Your task to perform on an android device: Show me popular videos on Youtube Image 0: 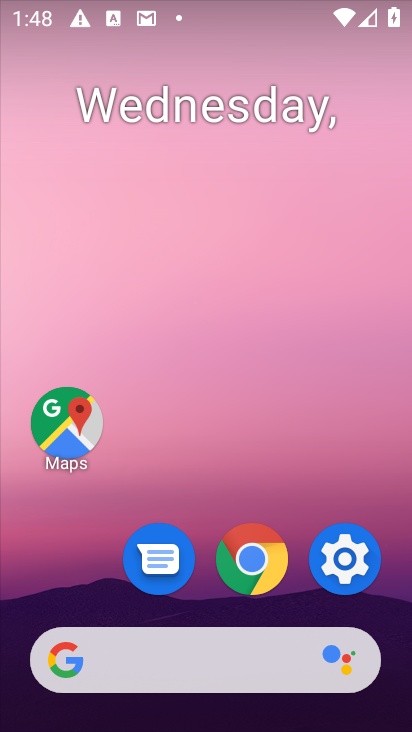
Step 0: press home button
Your task to perform on an android device: Show me popular videos on Youtube Image 1: 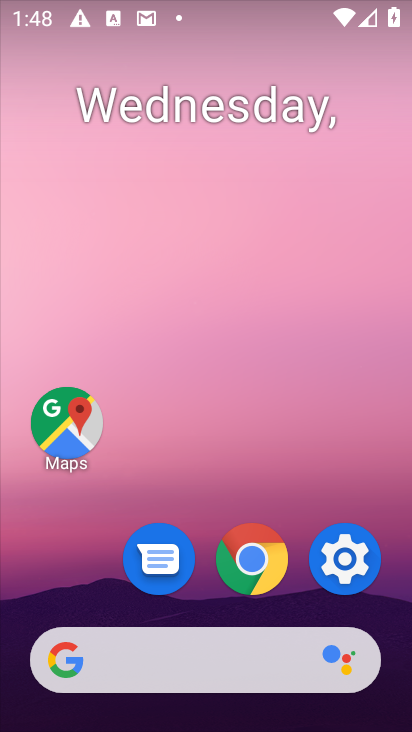
Step 1: drag from (302, 669) to (318, 109)
Your task to perform on an android device: Show me popular videos on Youtube Image 2: 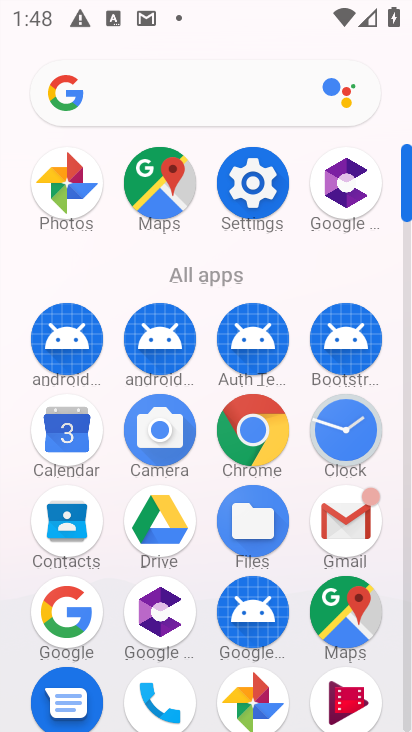
Step 2: drag from (107, 588) to (127, 358)
Your task to perform on an android device: Show me popular videos on Youtube Image 3: 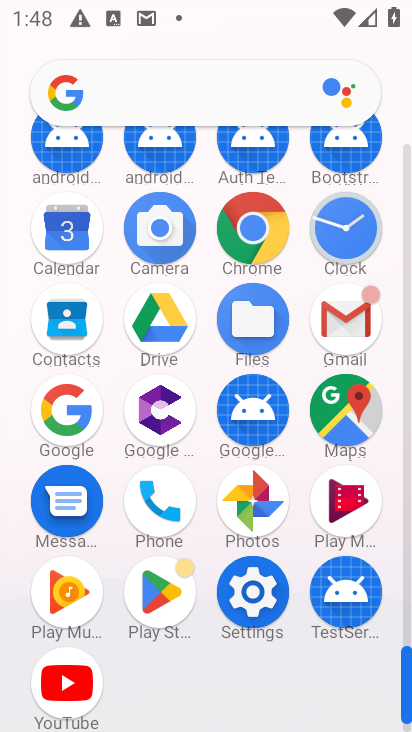
Step 3: click (49, 682)
Your task to perform on an android device: Show me popular videos on Youtube Image 4: 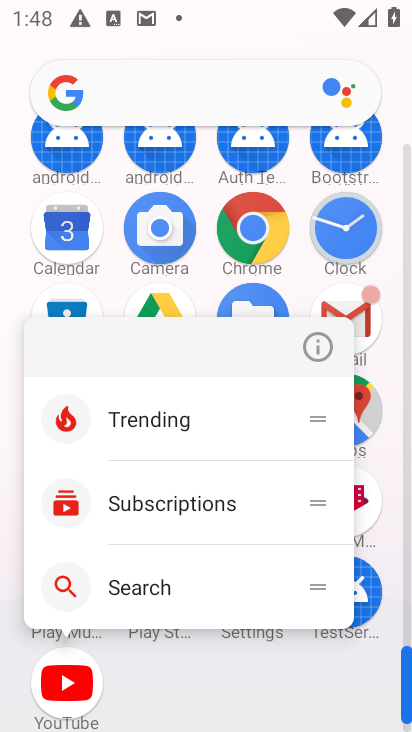
Step 4: click (74, 677)
Your task to perform on an android device: Show me popular videos on Youtube Image 5: 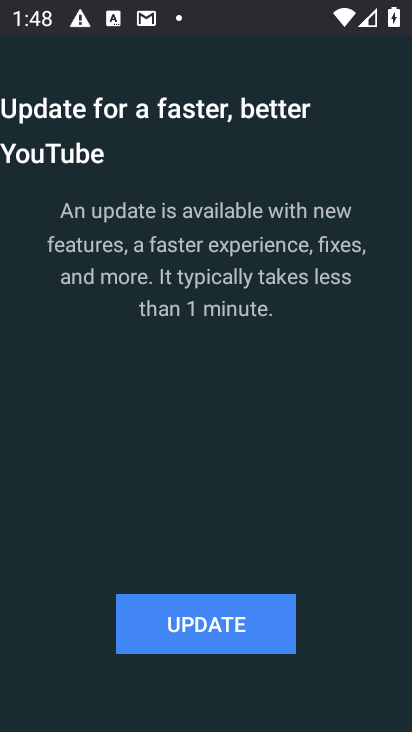
Step 5: click (192, 609)
Your task to perform on an android device: Show me popular videos on Youtube Image 6: 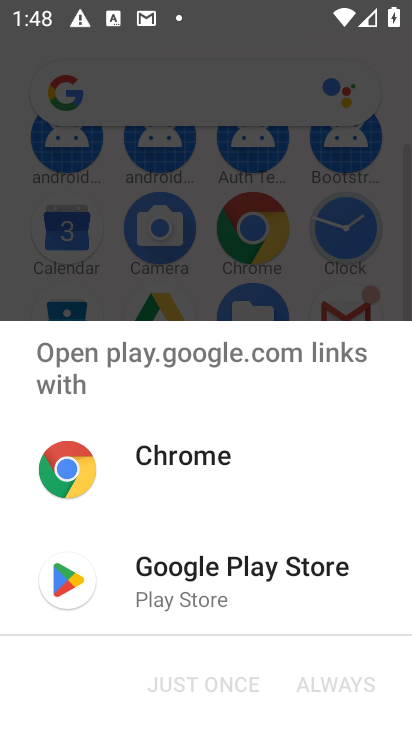
Step 6: click (203, 592)
Your task to perform on an android device: Show me popular videos on Youtube Image 7: 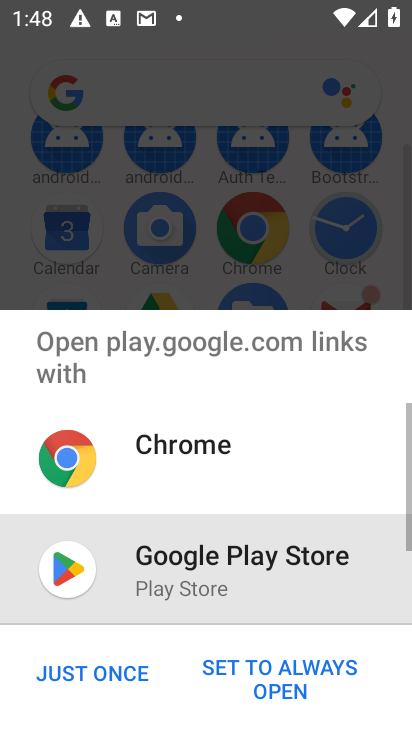
Step 7: click (95, 650)
Your task to perform on an android device: Show me popular videos on Youtube Image 8: 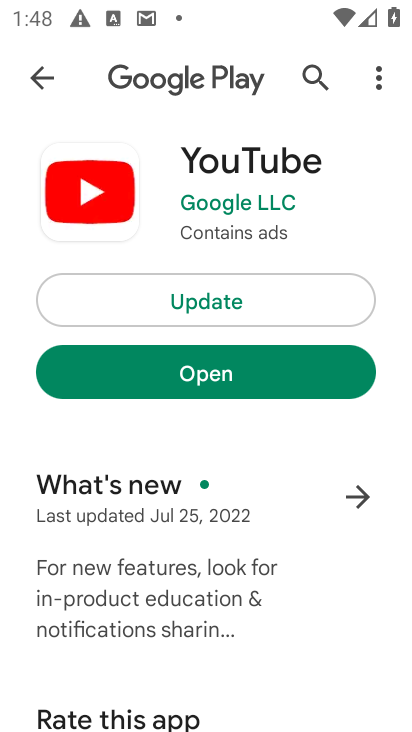
Step 8: click (243, 310)
Your task to perform on an android device: Show me popular videos on Youtube Image 9: 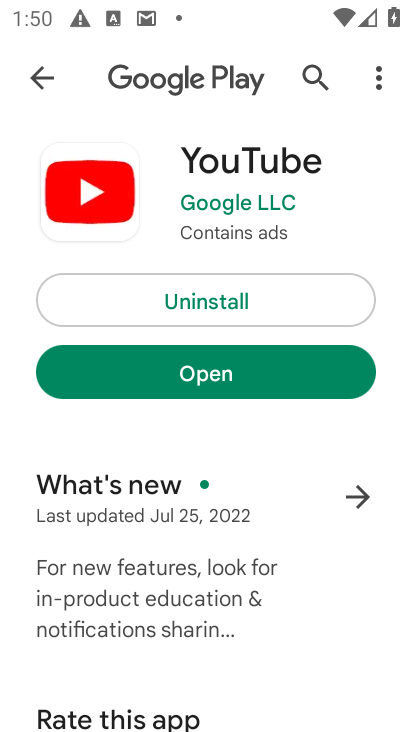
Step 9: click (283, 374)
Your task to perform on an android device: Show me popular videos on Youtube Image 10: 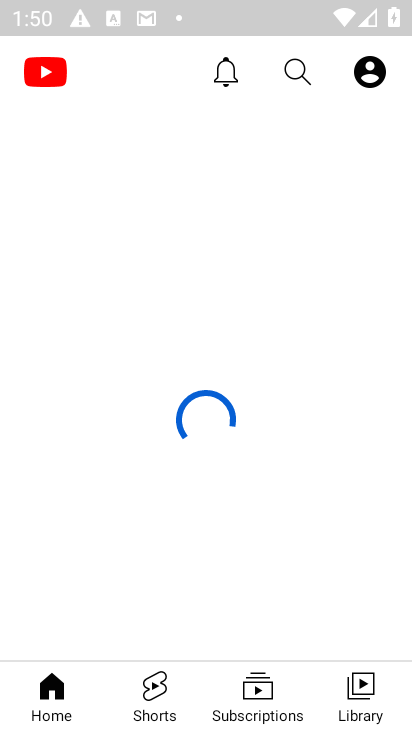
Step 10: click (325, 72)
Your task to perform on an android device: Show me popular videos on Youtube Image 11: 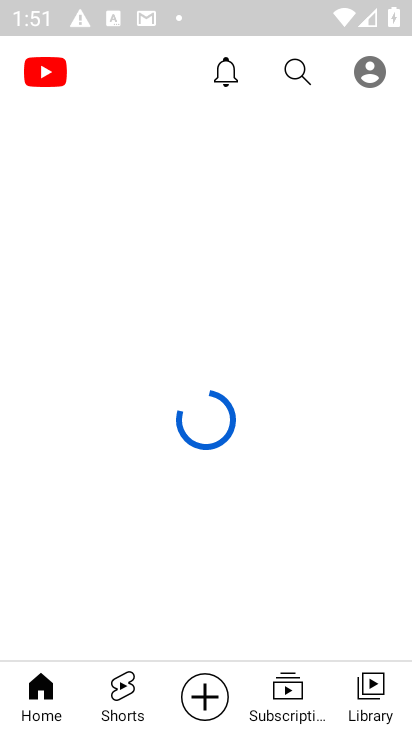
Step 11: click (283, 70)
Your task to perform on an android device: Show me popular videos on Youtube Image 12: 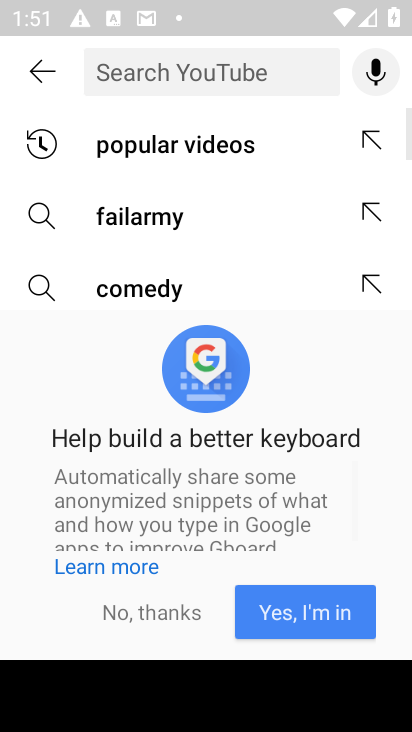
Step 12: click (170, 605)
Your task to perform on an android device: Show me popular videos on Youtube Image 13: 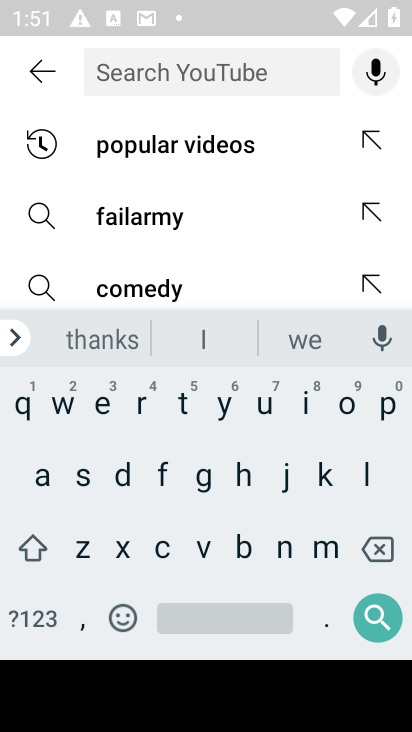
Step 13: click (141, 141)
Your task to perform on an android device: Show me popular videos on Youtube Image 14: 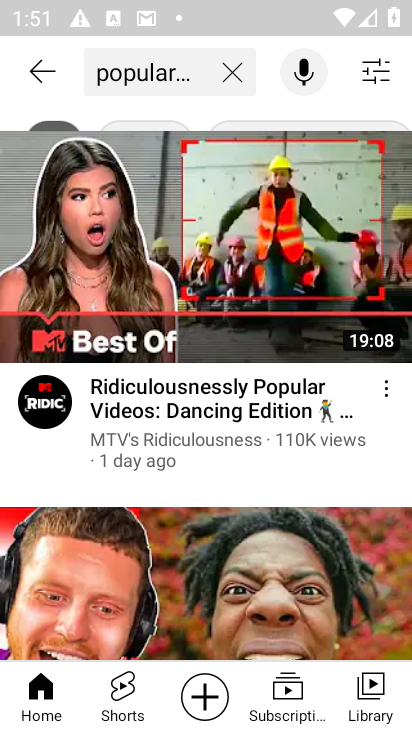
Step 14: task complete